Your task to perform on an android device: set an alarm Image 0: 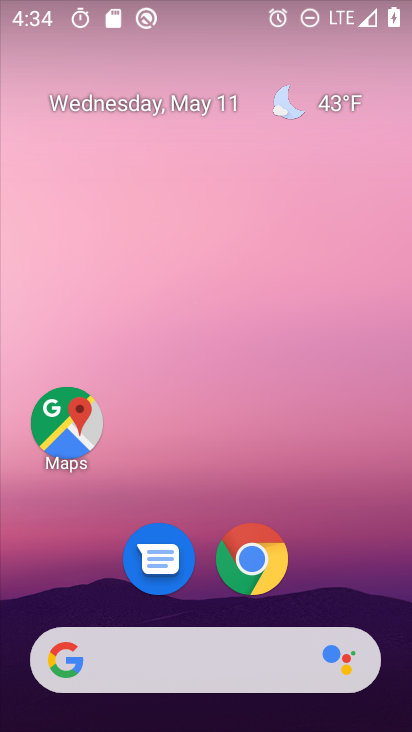
Step 0: drag from (335, 539) to (227, 95)
Your task to perform on an android device: set an alarm Image 1: 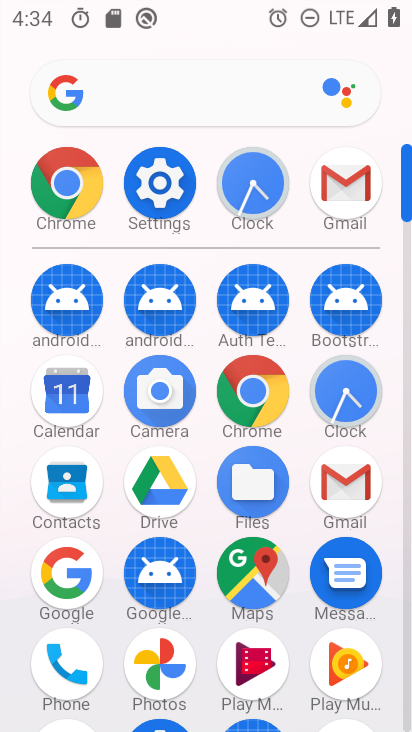
Step 1: click (264, 188)
Your task to perform on an android device: set an alarm Image 2: 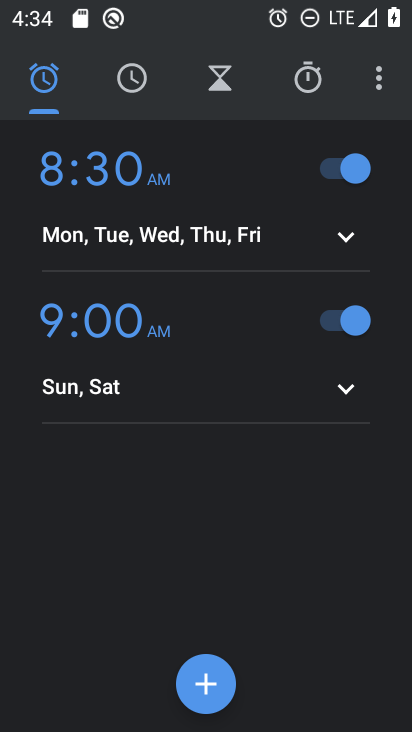
Step 2: click (206, 685)
Your task to perform on an android device: set an alarm Image 3: 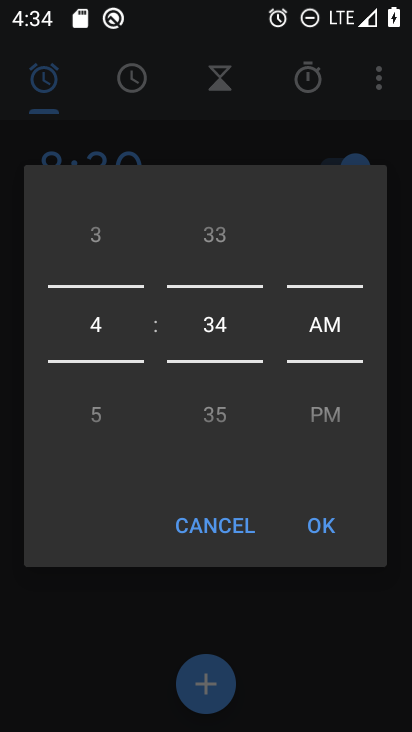
Step 3: click (327, 517)
Your task to perform on an android device: set an alarm Image 4: 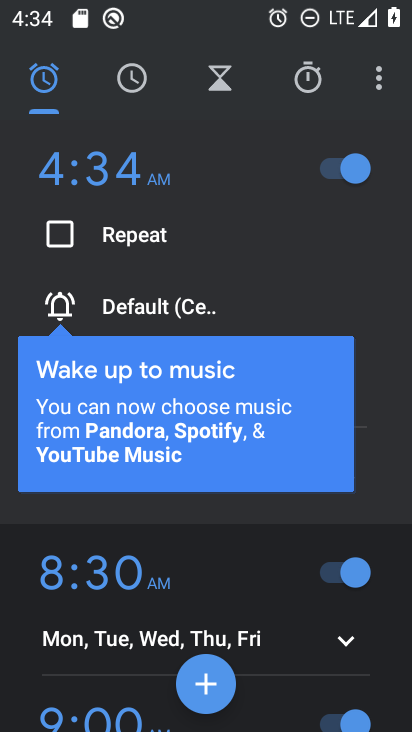
Step 4: task complete